Your task to perform on an android device: change your default location settings in chrome Image 0: 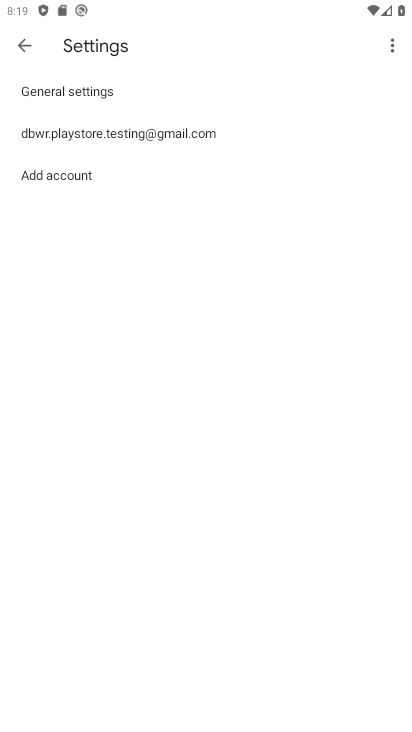
Step 0: press home button
Your task to perform on an android device: change your default location settings in chrome Image 1: 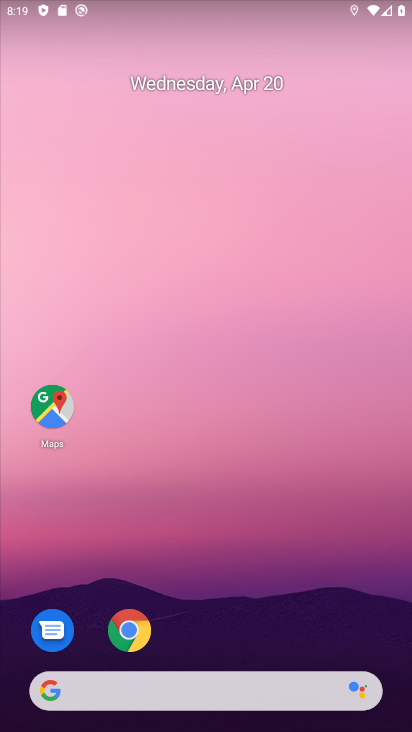
Step 1: click (127, 624)
Your task to perform on an android device: change your default location settings in chrome Image 2: 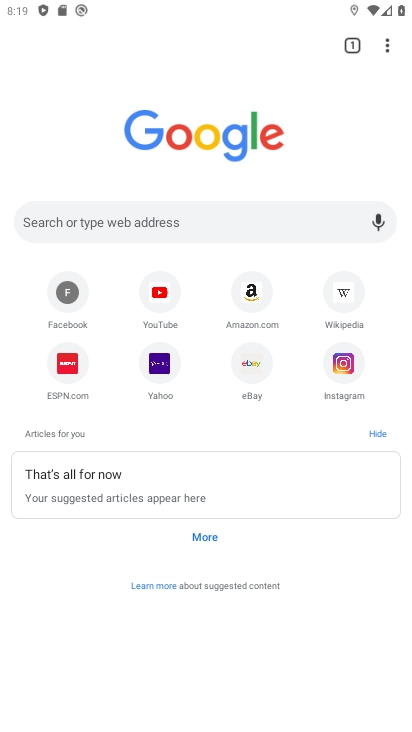
Step 2: click (393, 47)
Your task to perform on an android device: change your default location settings in chrome Image 3: 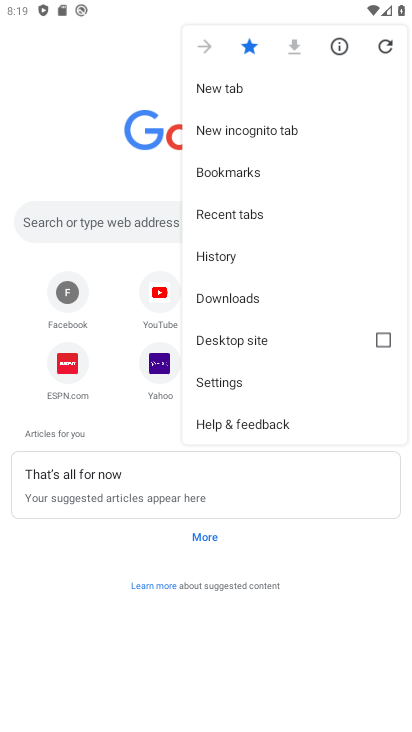
Step 3: click (212, 382)
Your task to perform on an android device: change your default location settings in chrome Image 4: 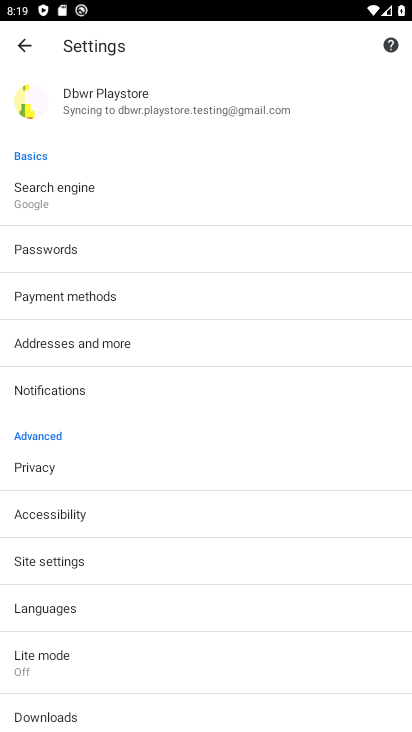
Step 4: click (67, 553)
Your task to perform on an android device: change your default location settings in chrome Image 5: 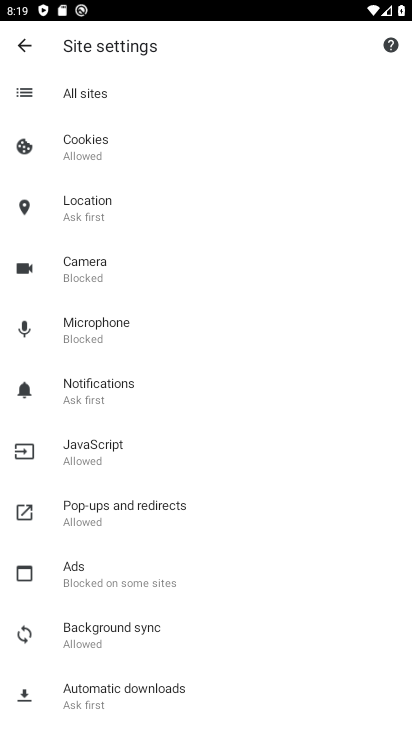
Step 5: click (82, 208)
Your task to perform on an android device: change your default location settings in chrome Image 6: 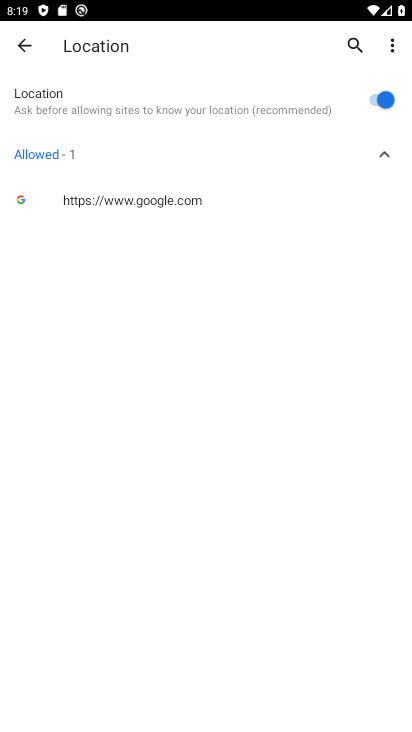
Step 6: click (370, 97)
Your task to perform on an android device: change your default location settings in chrome Image 7: 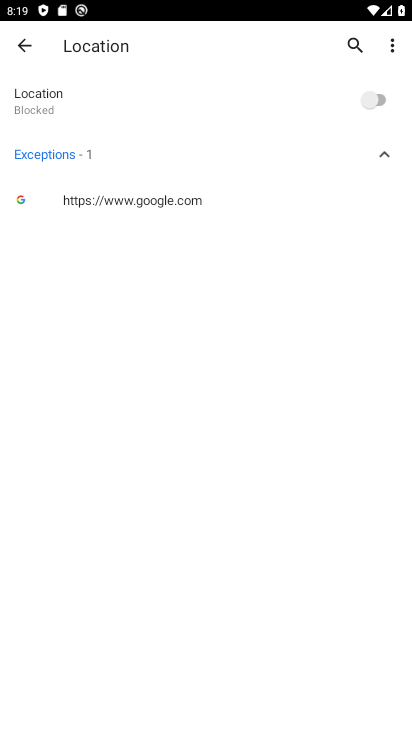
Step 7: task complete